Your task to perform on an android device: visit the assistant section in the google photos Image 0: 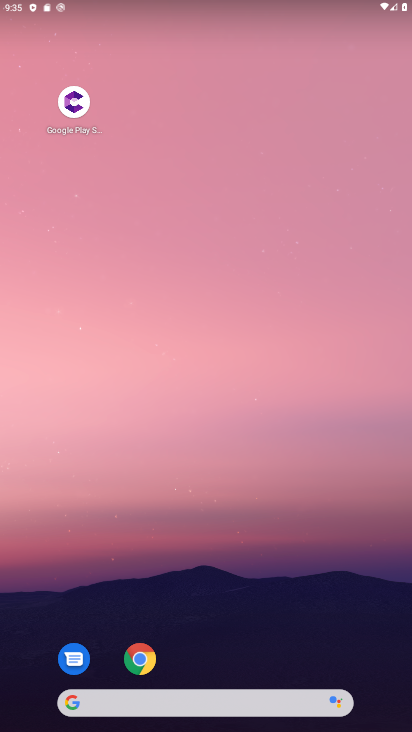
Step 0: drag from (304, 575) to (231, 95)
Your task to perform on an android device: visit the assistant section in the google photos Image 1: 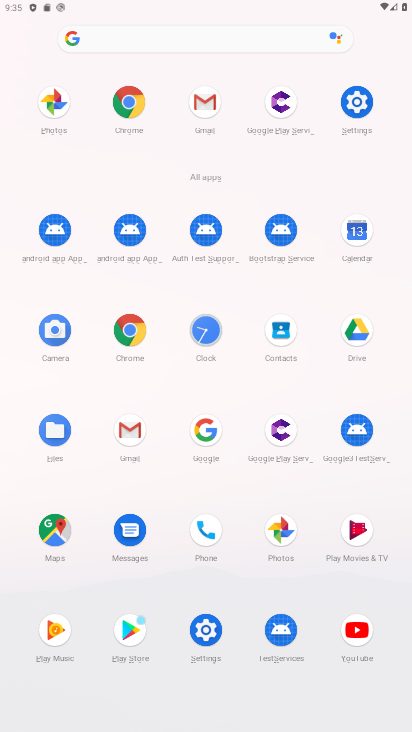
Step 1: click (284, 526)
Your task to perform on an android device: visit the assistant section in the google photos Image 2: 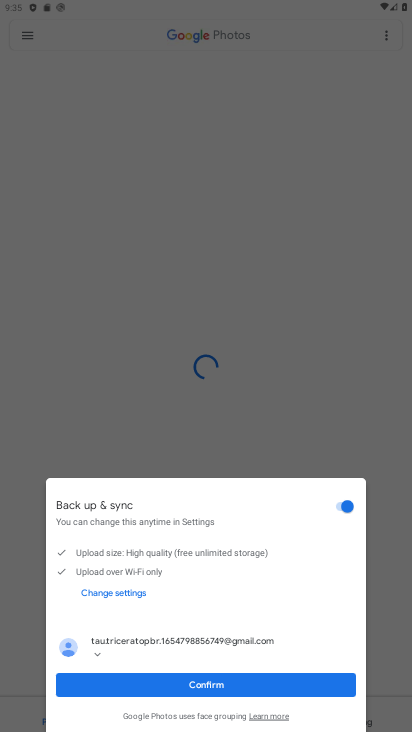
Step 2: click (266, 680)
Your task to perform on an android device: visit the assistant section in the google photos Image 3: 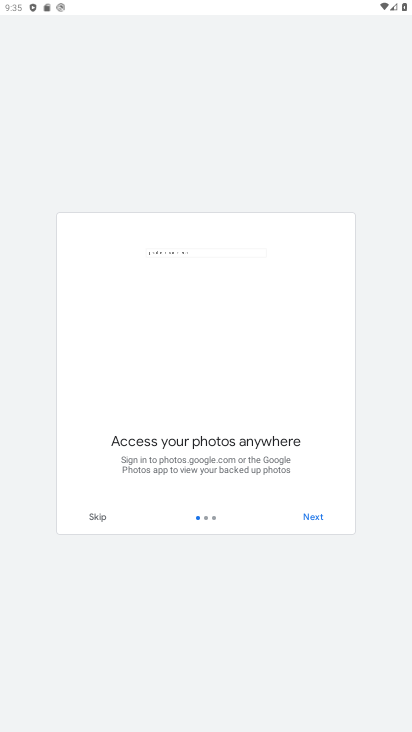
Step 3: click (319, 513)
Your task to perform on an android device: visit the assistant section in the google photos Image 4: 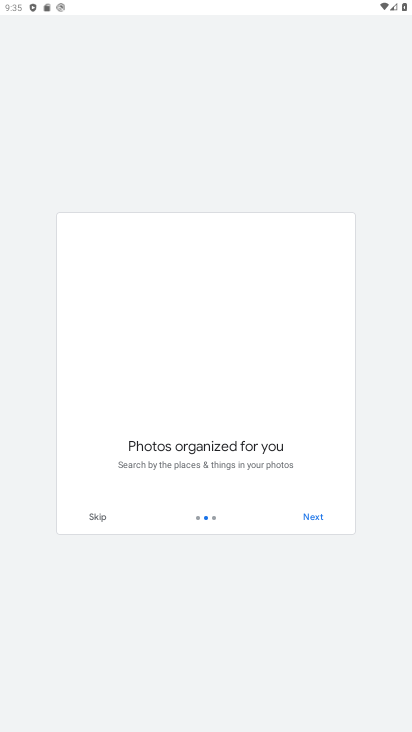
Step 4: click (319, 513)
Your task to perform on an android device: visit the assistant section in the google photos Image 5: 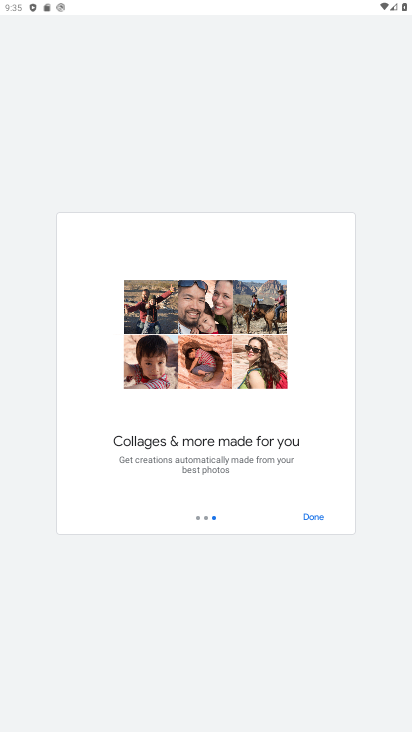
Step 5: click (319, 513)
Your task to perform on an android device: visit the assistant section in the google photos Image 6: 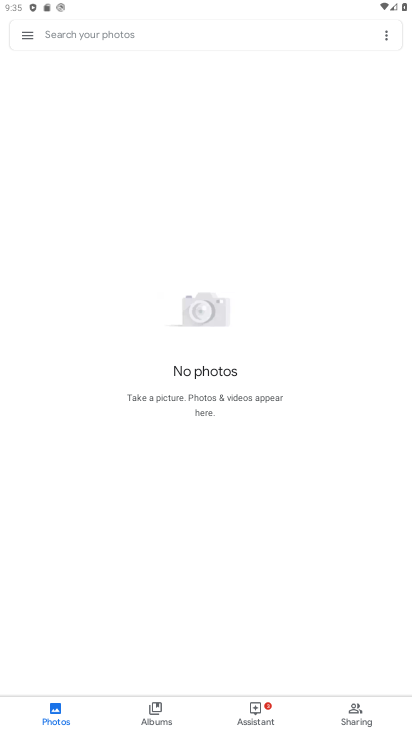
Step 6: click (275, 714)
Your task to perform on an android device: visit the assistant section in the google photos Image 7: 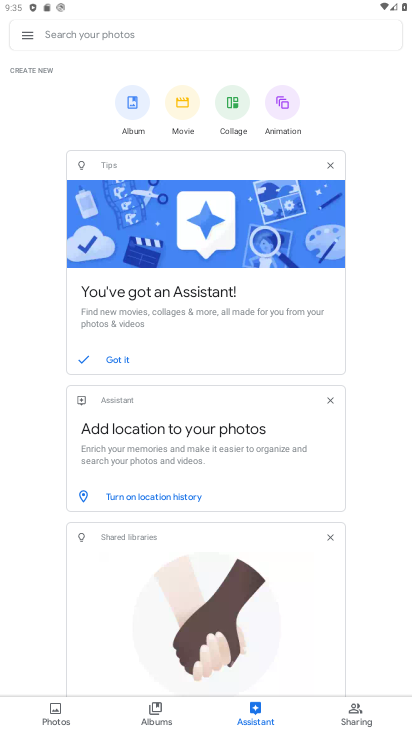
Step 7: task complete